Your task to perform on an android device: open a new tab in the chrome app Image 0: 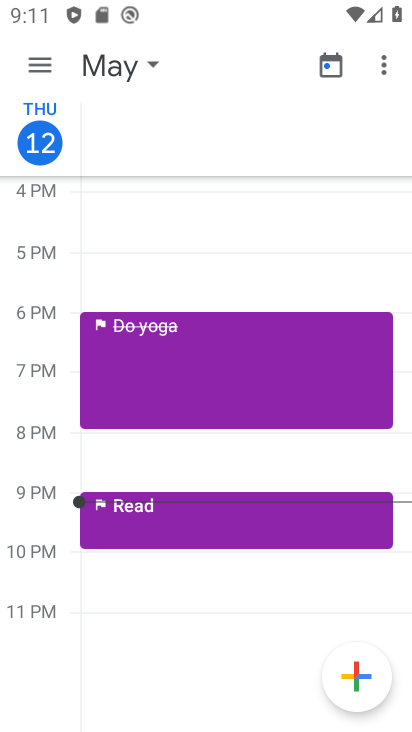
Step 0: press home button
Your task to perform on an android device: open a new tab in the chrome app Image 1: 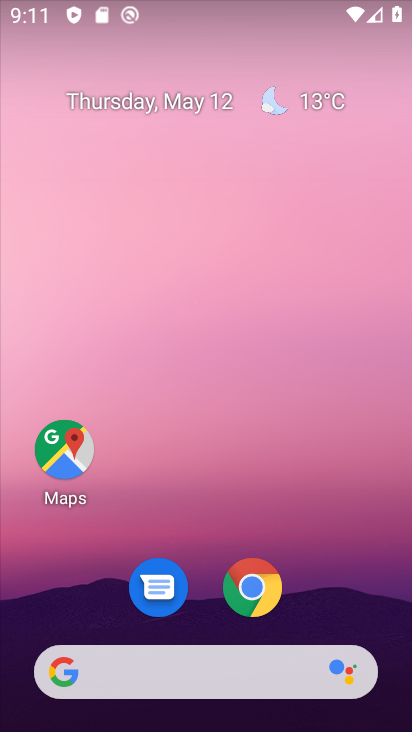
Step 1: drag from (359, 581) to (324, 122)
Your task to perform on an android device: open a new tab in the chrome app Image 2: 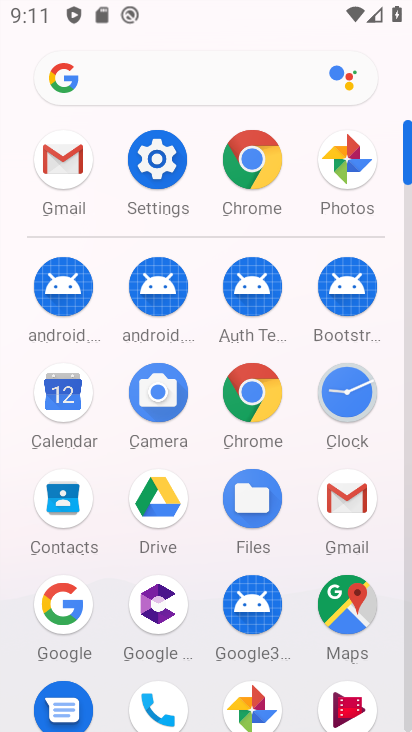
Step 2: click (261, 166)
Your task to perform on an android device: open a new tab in the chrome app Image 3: 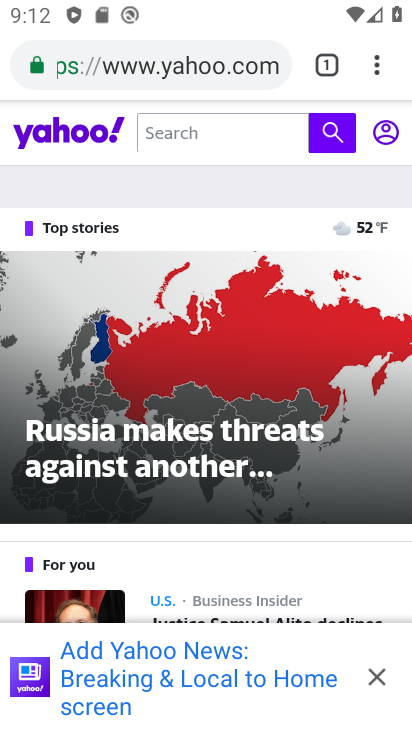
Step 3: task complete